Your task to perform on an android device: open a bookmark in the chrome app Image 0: 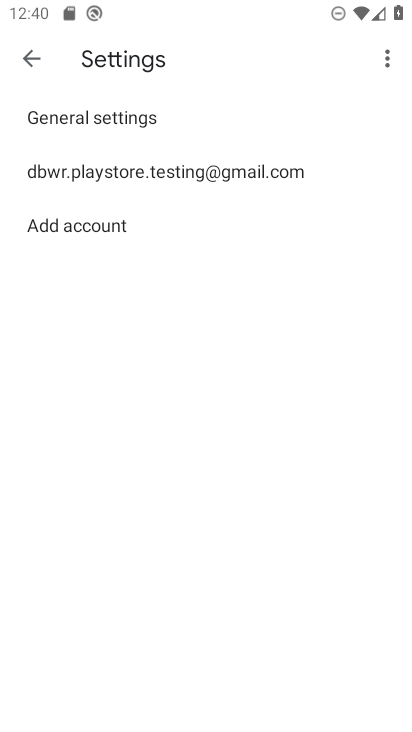
Step 0: press home button
Your task to perform on an android device: open a bookmark in the chrome app Image 1: 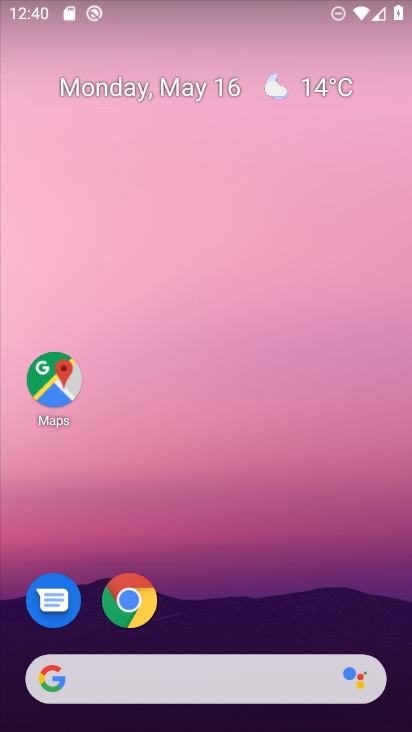
Step 1: click (125, 595)
Your task to perform on an android device: open a bookmark in the chrome app Image 2: 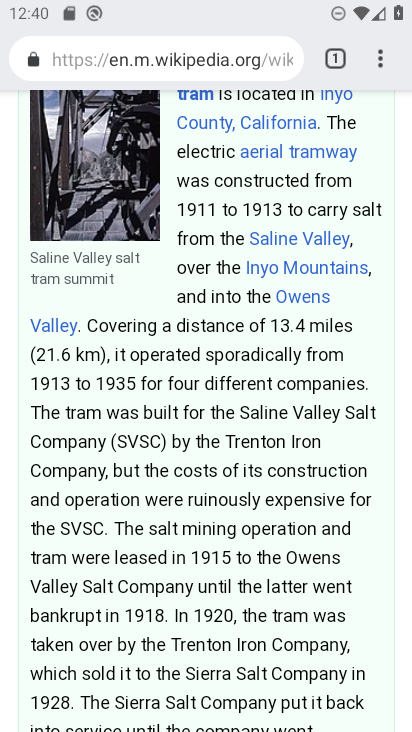
Step 2: click (332, 56)
Your task to perform on an android device: open a bookmark in the chrome app Image 3: 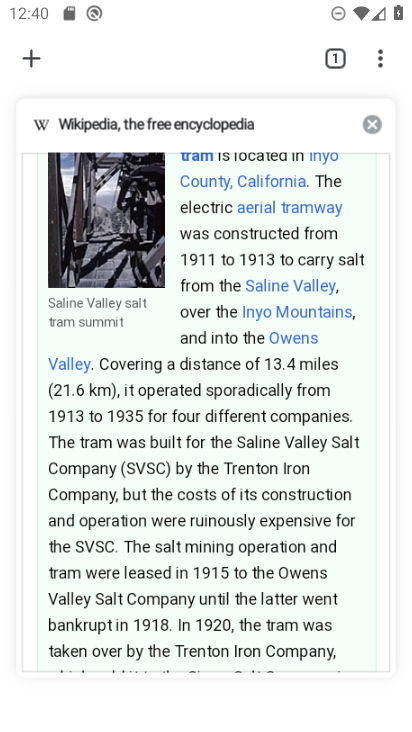
Step 3: click (34, 58)
Your task to perform on an android device: open a bookmark in the chrome app Image 4: 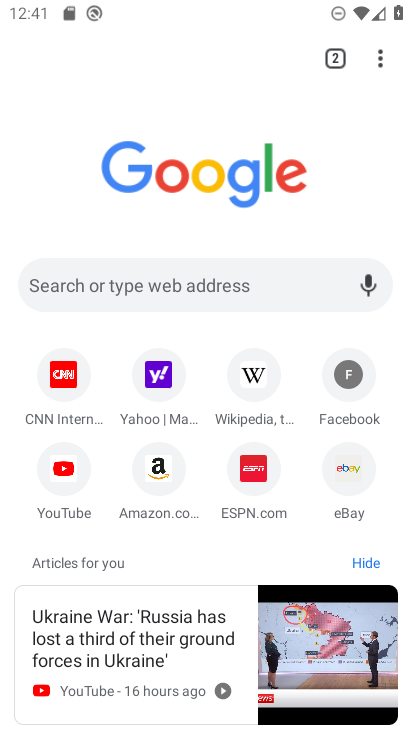
Step 4: click (377, 49)
Your task to perform on an android device: open a bookmark in the chrome app Image 5: 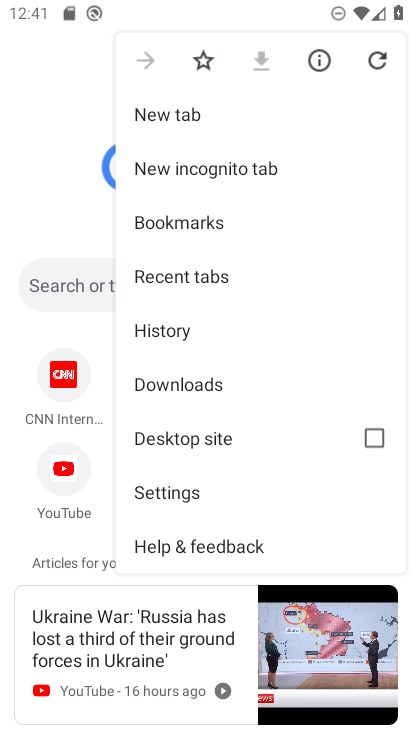
Step 5: click (228, 221)
Your task to perform on an android device: open a bookmark in the chrome app Image 6: 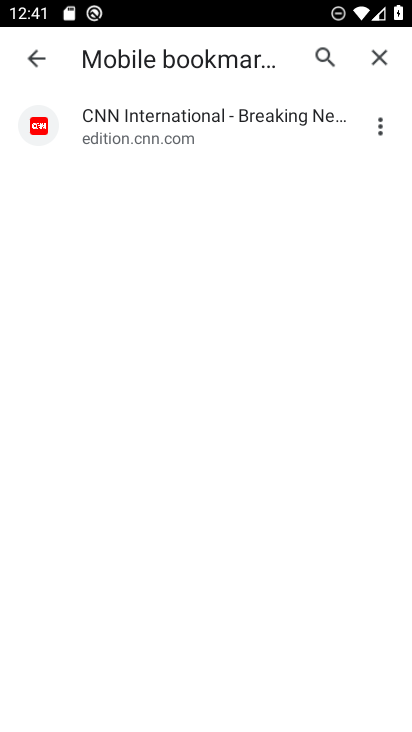
Step 6: click (215, 125)
Your task to perform on an android device: open a bookmark in the chrome app Image 7: 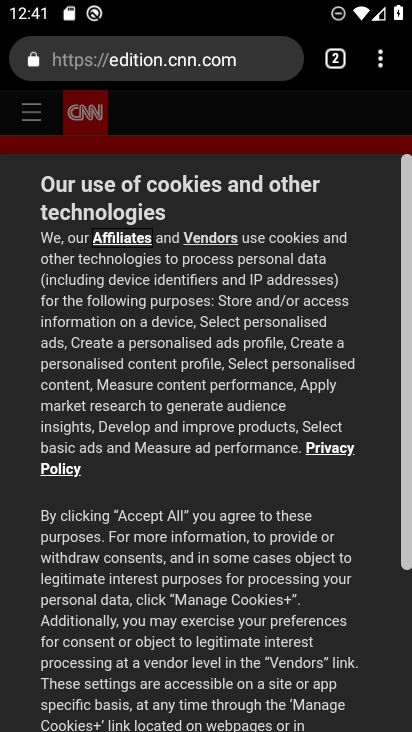
Step 7: drag from (210, 617) to (203, 224)
Your task to perform on an android device: open a bookmark in the chrome app Image 8: 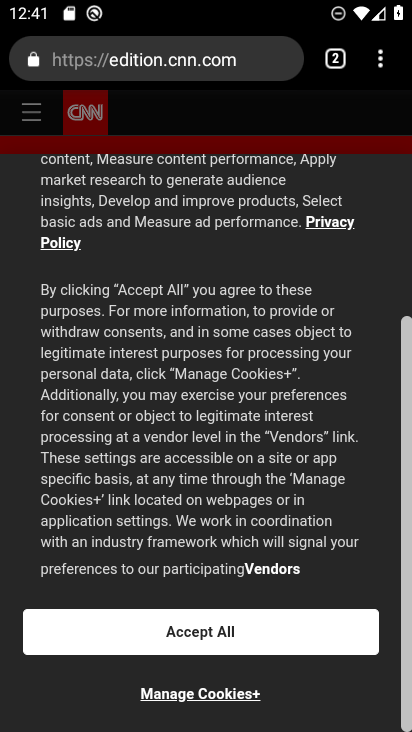
Step 8: click (213, 626)
Your task to perform on an android device: open a bookmark in the chrome app Image 9: 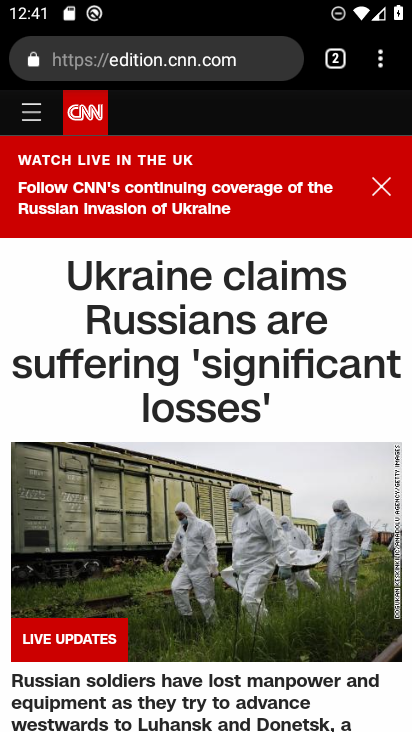
Step 9: task complete